Your task to perform on an android device: Open notification settings Image 0: 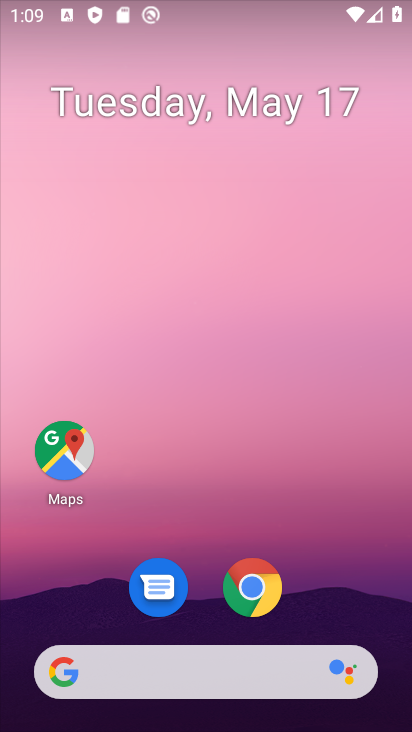
Step 0: drag from (198, 589) to (230, 249)
Your task to perform on an android device: Open notification settings Image 1: 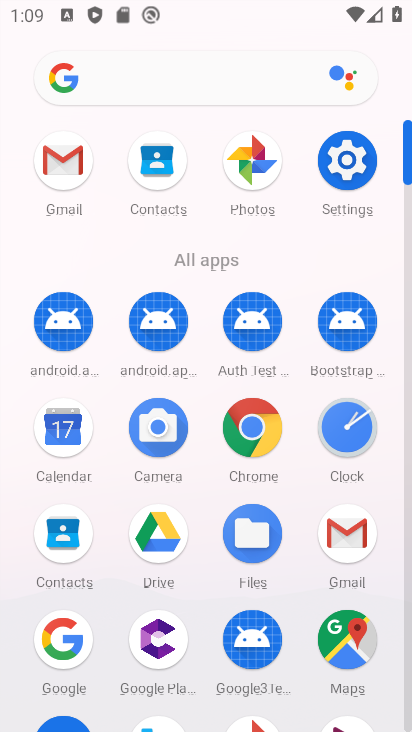
Step 1: click (331, 143)
Your task to perform on an android device: Open notification settings Image 2: 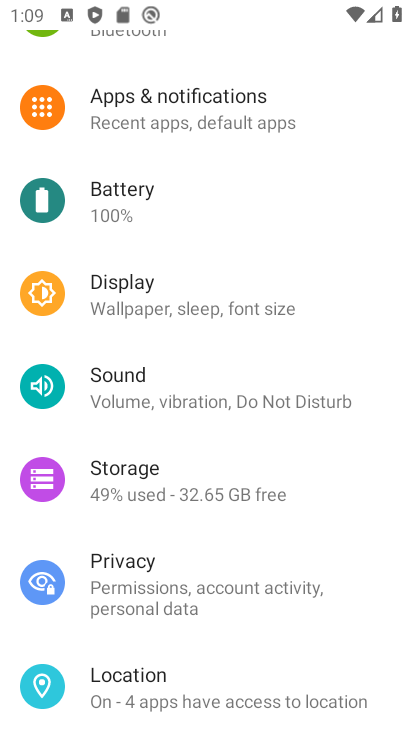
Step 2: drag from (201, 625) to (283, 290)
Your task to perform on an android device: Open notification settings Image 3: 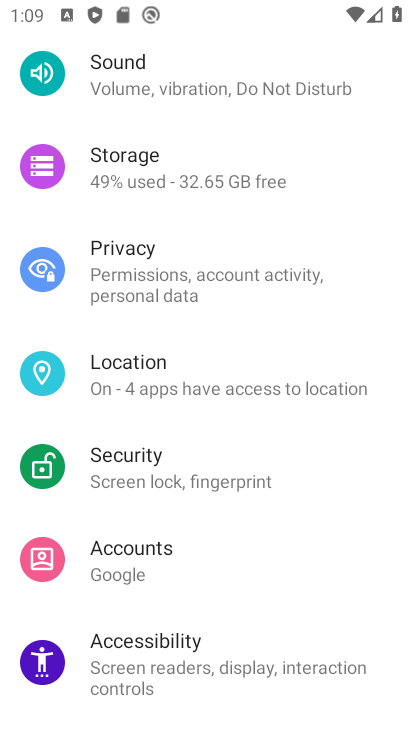
Step 3: drag from (279, 149) to (253, 718)
Your task to perform on an android device: Open notification settings Image 4: 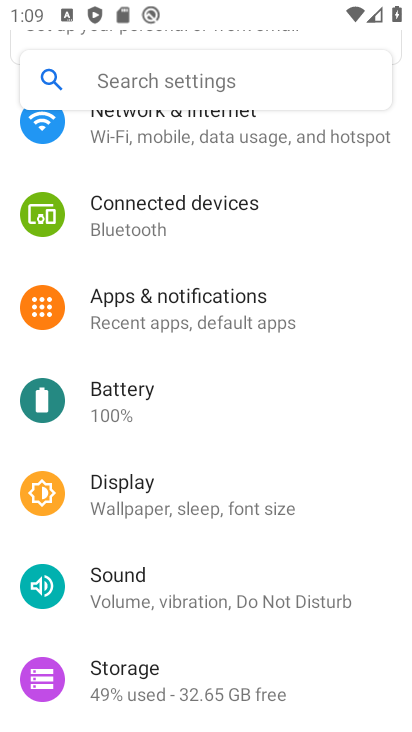
Step 4: click (174, 309)
Your task to perform on an android device: Open notification settings Image 5: 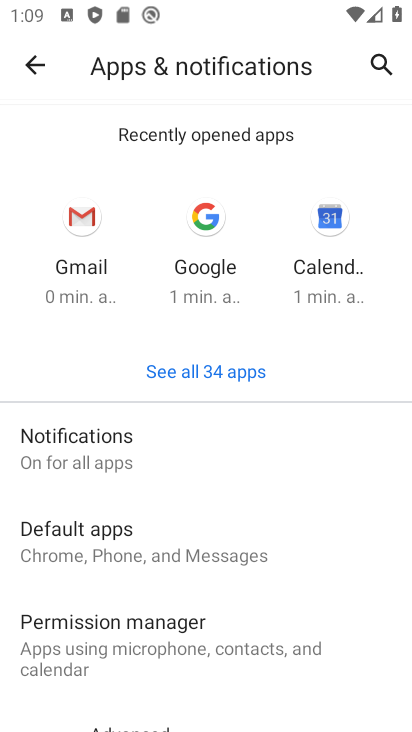
Step 5: click (148, 459)
Your task to perform on an android device: Open notification settings Image 6: 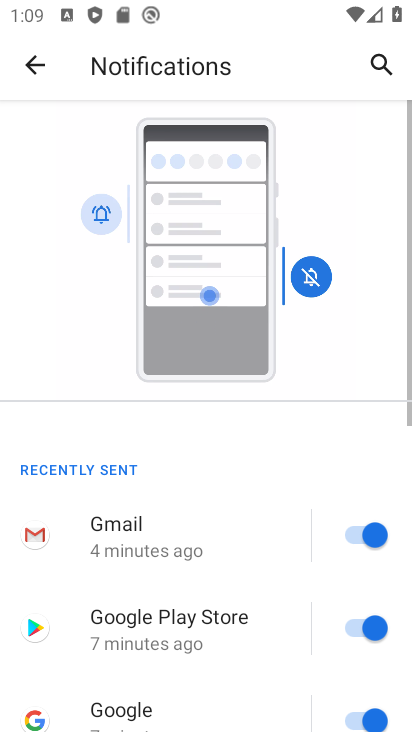
Step 6: task complete